Your task to perform on an android device: allow notifications from all sites in the chrome app Image 0: 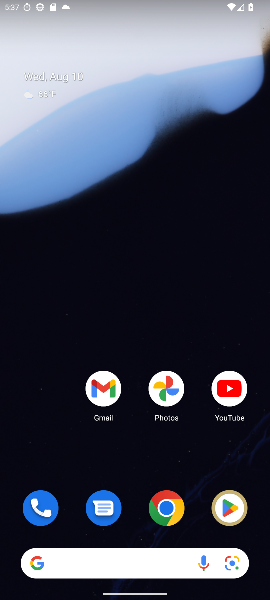
Step 0: press home button
Your task to perform on an android device: allow notifications from all sites in the chrome app Image 1: 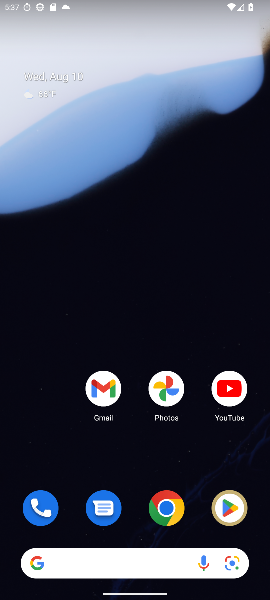
Step 1: click (162, 506)
Your task to perform on an android device: allow notifications from all sites in the chrome app Image 2: 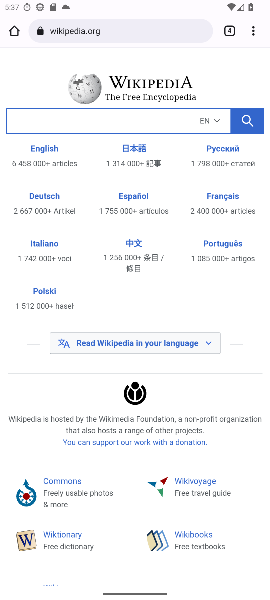
Step 2: drag from (249, 25) to (162, 393)
Your task to perform on an android device: allow notifications from all sites in the chrome app Image 3: 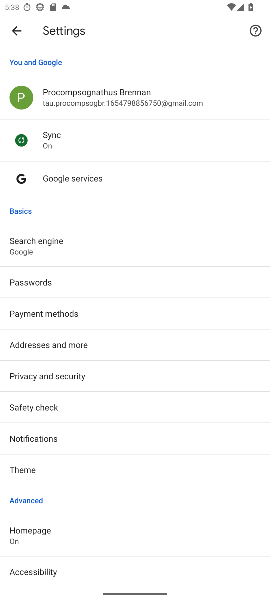
Step 3: drag from (83, 508) to (95, 389)
Your task to perform on an android device: allow notifications from all sites in the chrome app Image 4: 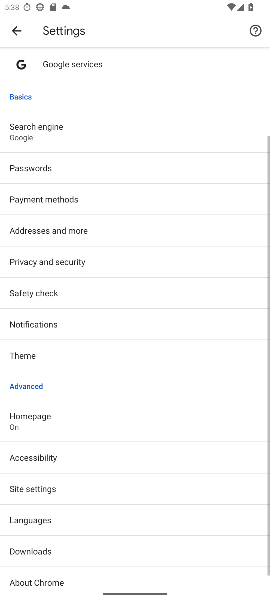
Step 4: click (36, 491)
Your task to perform on an android device: allow notifications from all sites in the chrome app Image 5: 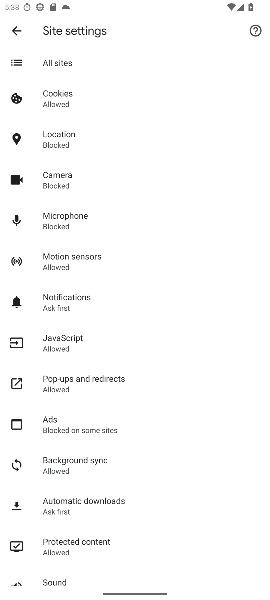
Step 5: click (60, 300)
Your task to perform on an android device: allow notifications from all sites in the chrome app Image 6: 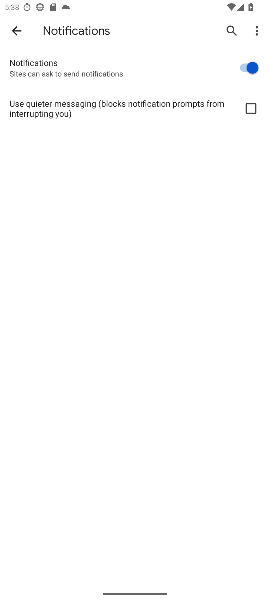
Step 6: task complete